Your task to perform on an android device: all mails in gmail Image 0: 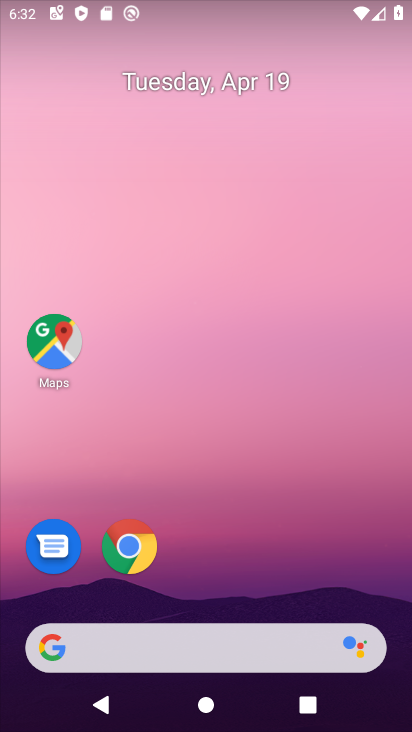
Step 0: drag from (284, 496) to (331, 106)
Your task to perform on an android device: all mails in gmail Image 1: 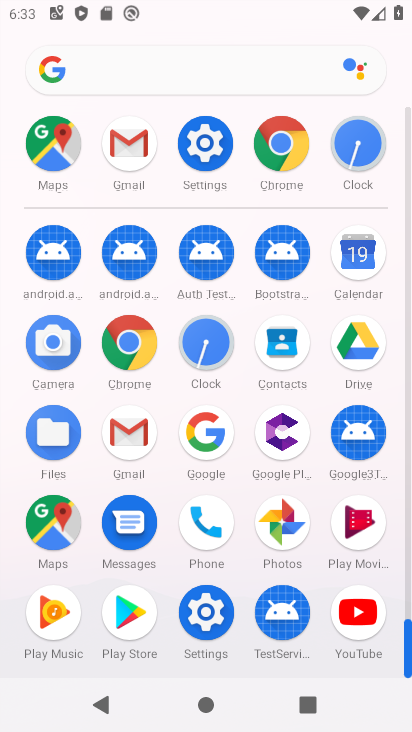
Step 1: click (127, 140)
Your task to perform on an android device: all mails in gmail Image 2: 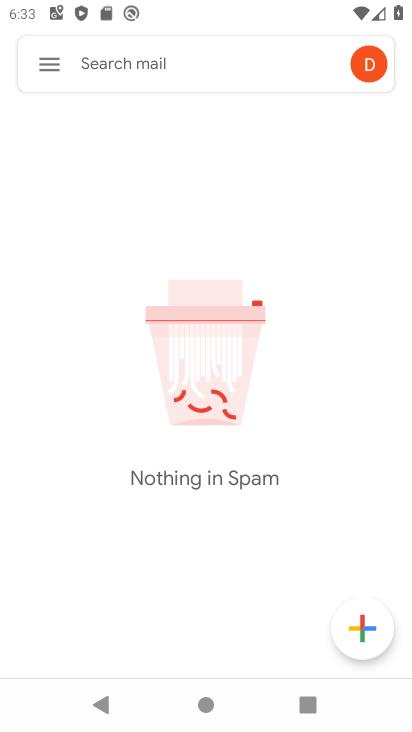
Step 2: click (52, 63)
Your task to perform on an android device: all mails in gmail Image 3: 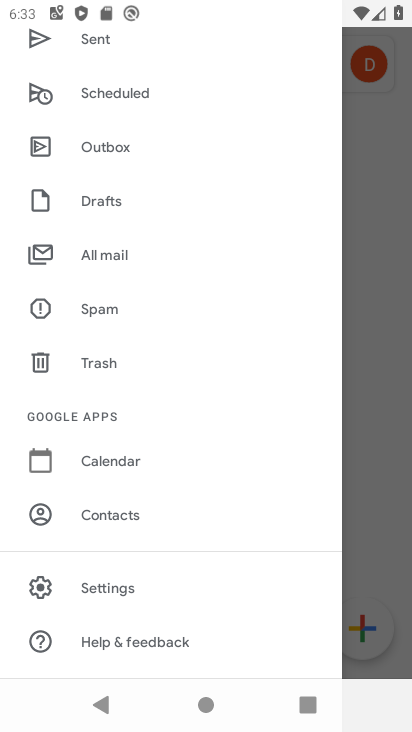
Step 3: click (104, 256)
Your task to perform on an android device: all mails in gmail Image 4: 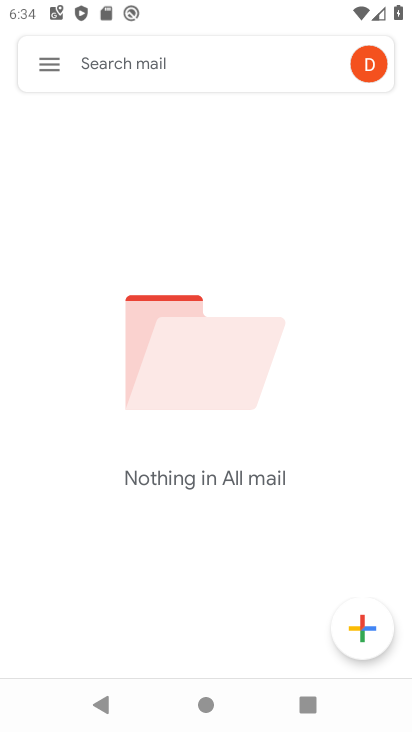
Step 4: task complete